Your task to perform on an android device: check google app version Image 0: 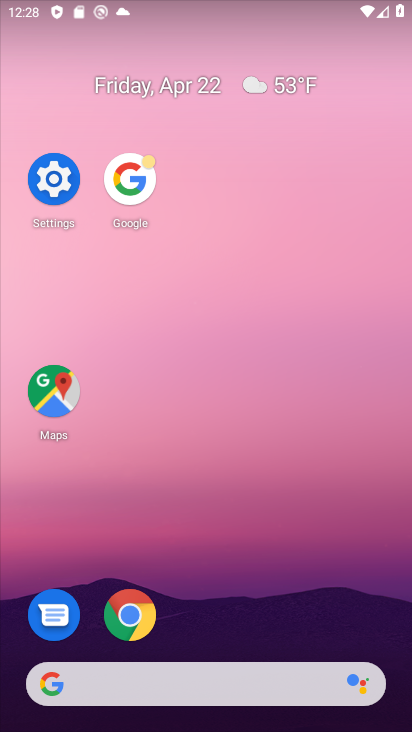
Step 0: click (130, 181)
Your task to perform on an android device: check google app version Image 1: 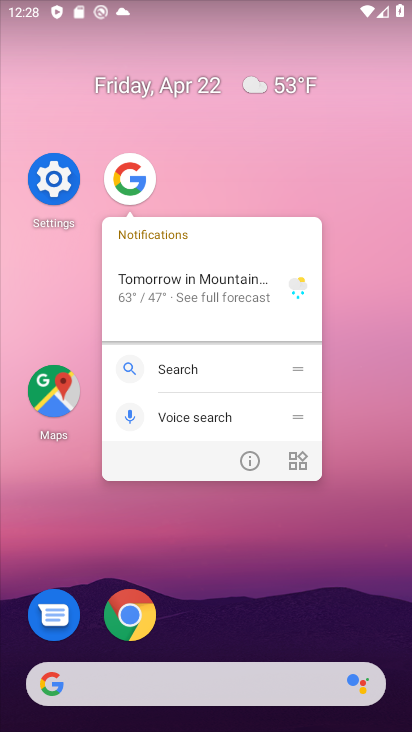
Step 1: click (251, 455)
Your task to perform on an android device: check google app version Image 2: 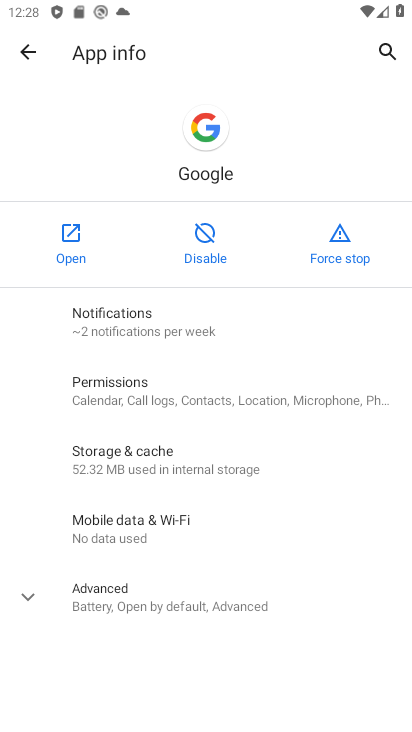
Step 2: drag from (218, 510) to (231, 177)
Your task to perform on an android device: check google app version Image 3: 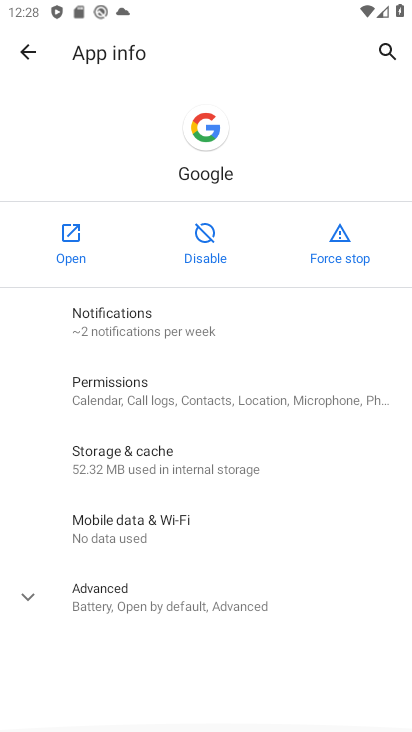
Step 3: click (173, 613)
Your task to perform on an android device: check google app version Image 4: 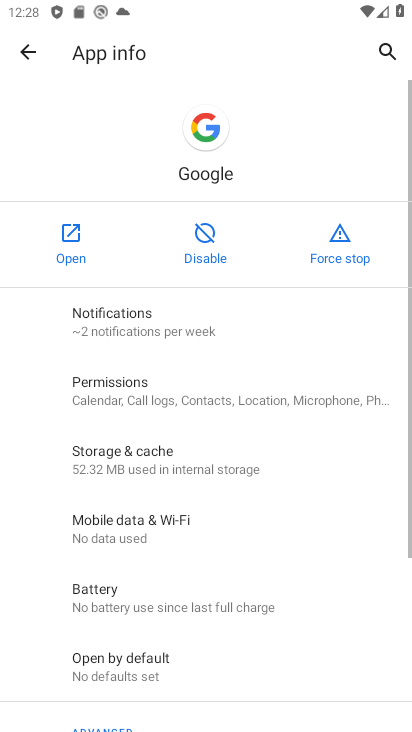
Step 4: task complete